Your task to perform on an android device: Open the phone app and click the voicemail tab. Image 0: 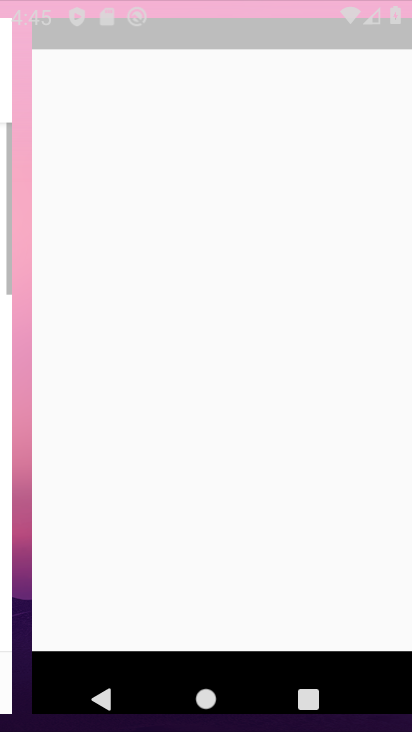
Step 0: drag from (347, 523) to (313, 66)
Your task to perform on an android device: Open the phone app and click the voicemail tab. Image 1: 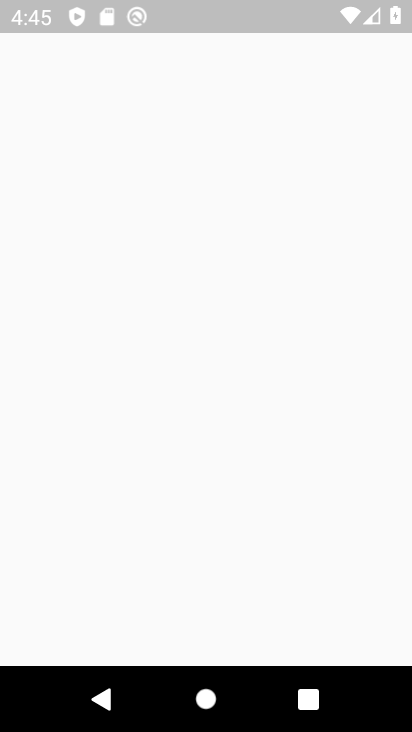
Step 1: press home button
Your task to perform on an android device: Open the phone app and click the voicemail tab. Image 2: 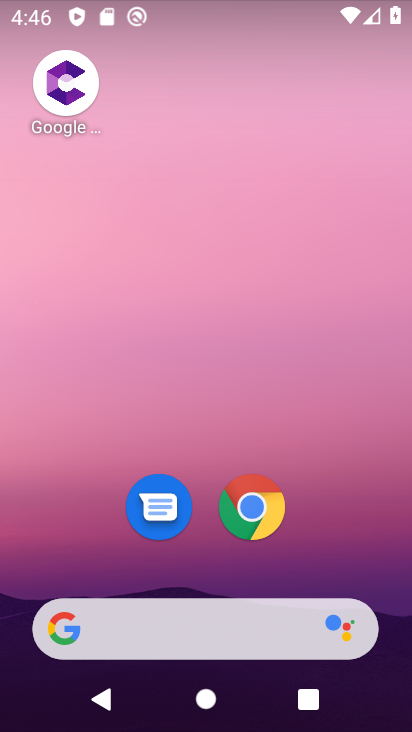
Step 2: drag from (349, 477) to (317, 11)
Your task to perform on an android device: Open the phone app and click the voicemail tab. Image 3: 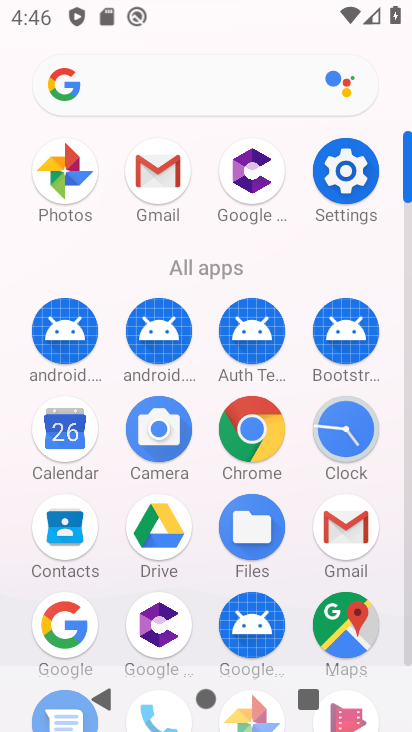
Step 3: drag from (191, 645) to (244, 244)
Your task to perform on an android device: Open the phone app and click the voicemail tab. Image 4: 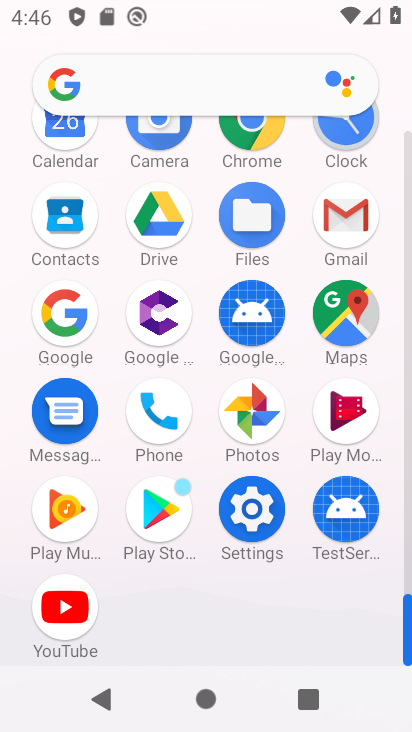
Step 4: click (166, 518)
Your task to perform on an android device: Open the phone app and click the voicemail tab. Image 5: 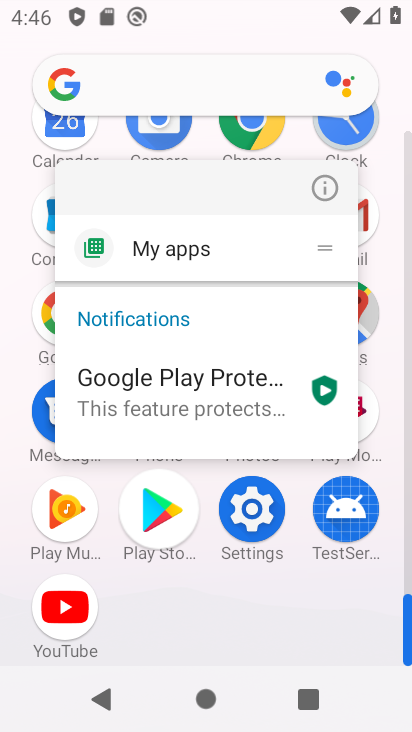
Step 5: click (166, 518)
Your task to perform on an android device: Open the phone app and click the voicemail tab. Image 6: 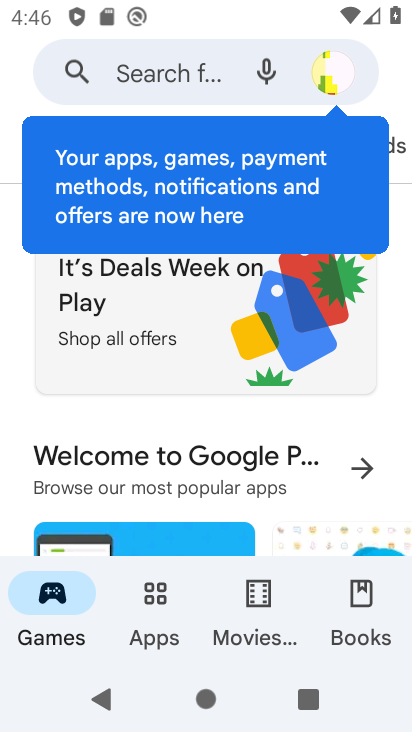
Step 6: press home button
Your task to perform on an android device: Open the phone app and click the voicemail tab. Image 7: 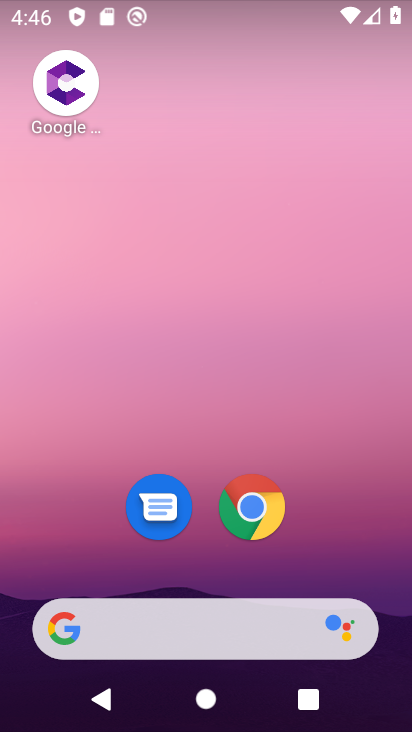
Step 7: drag from (311, 544) to (338, 65)
Your task to perform on an android device: Open the phone app and click the voicemail tab. Image 8: 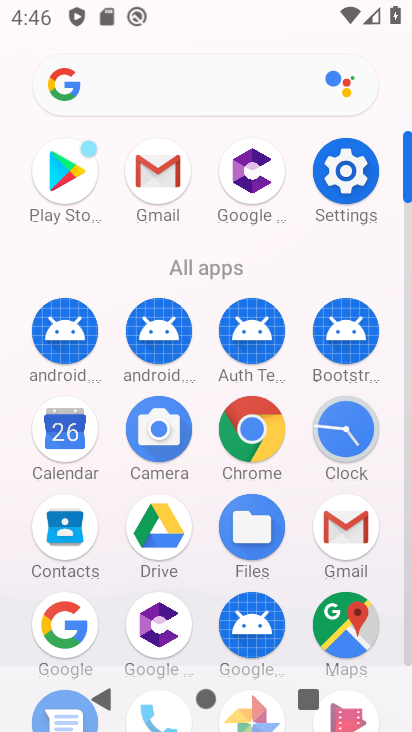
Step 8: drag from (207, 578) to (243, 285)
Your task to perform on an android device: Open the phone app and click the voicemail tab. Image 9: 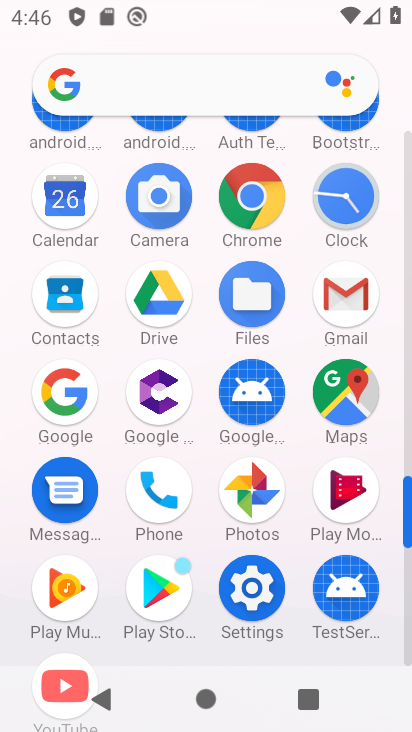
Step 9: click (163, 493)
Your task to perform on an android device: Open the phone app and click the voicemail tab. Image 10: 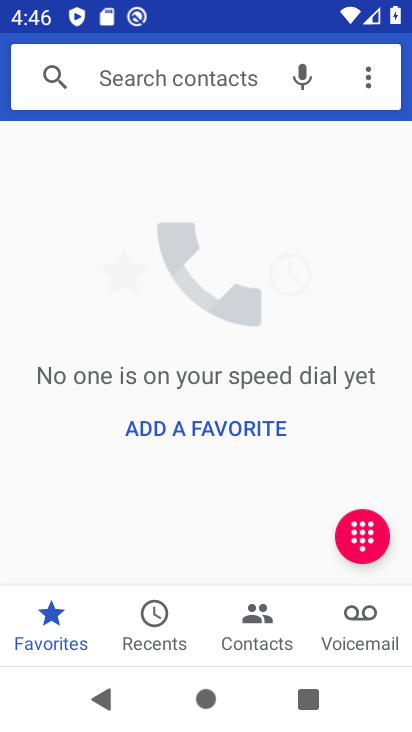
Step 10: click (374, 625)
Your task to perform on an android device: Open the phone app and click the voicemail tab. Image 11: 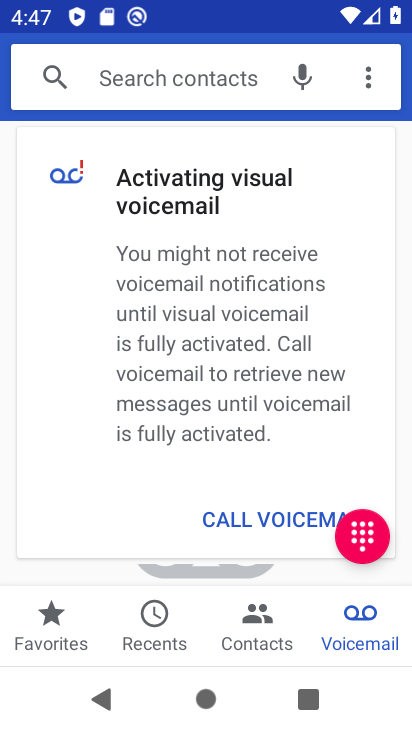
Step 11: task complete